Your task to perform on an android device: Show me popular videos on Youtube Image 0: 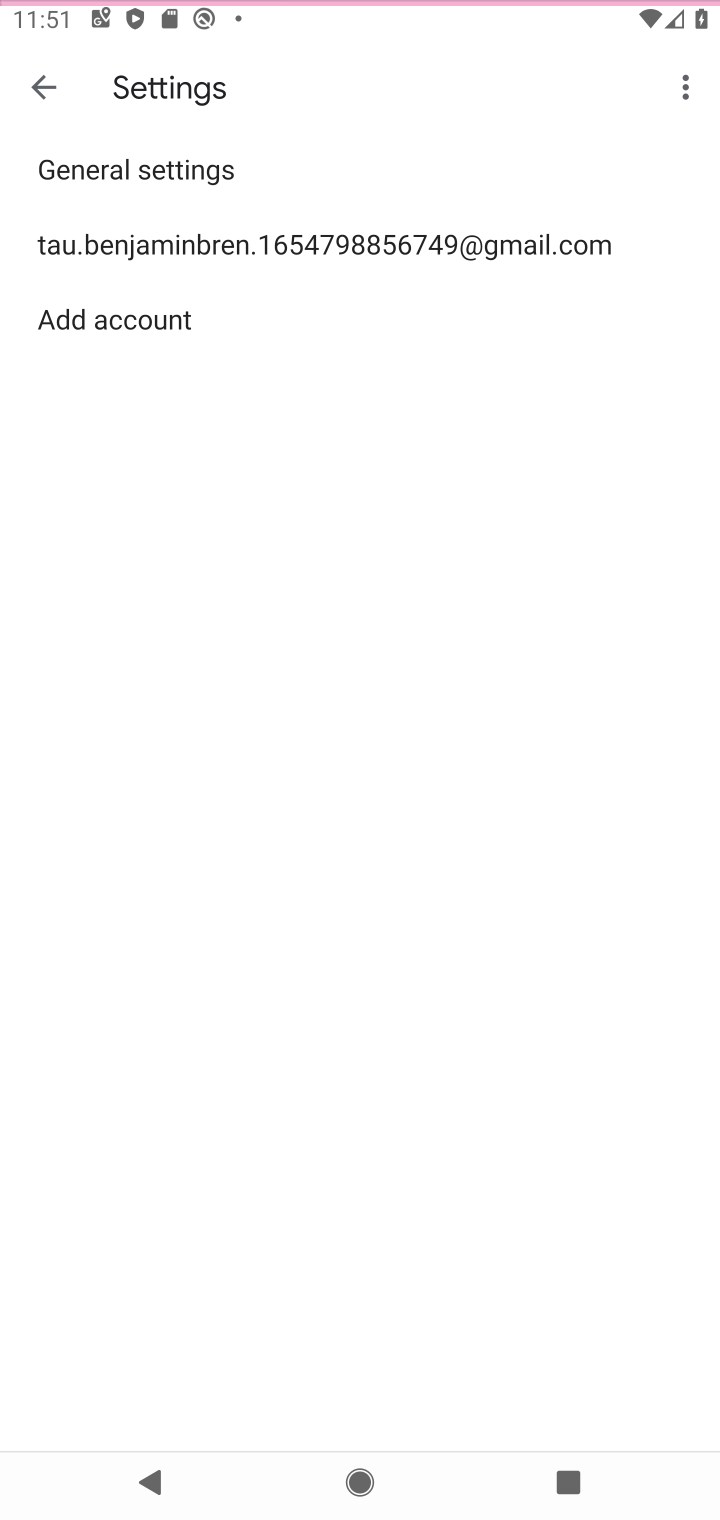
Step 0: press back button
Your task to perform on an android device: Show me popular videos on Youtube Image 1: 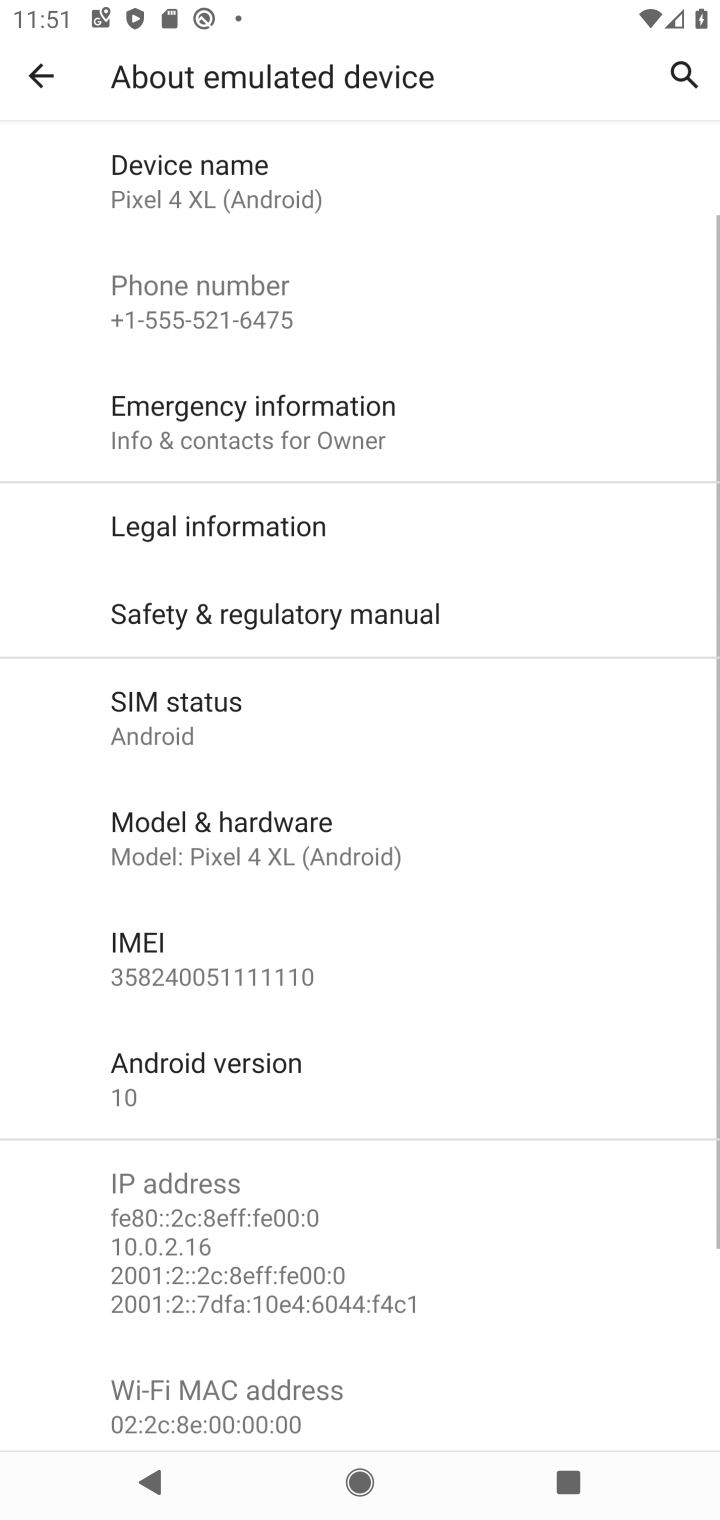
Step 1: press back button
Your task to perform on an android device: Show me popular videos on Youtube Image 2: 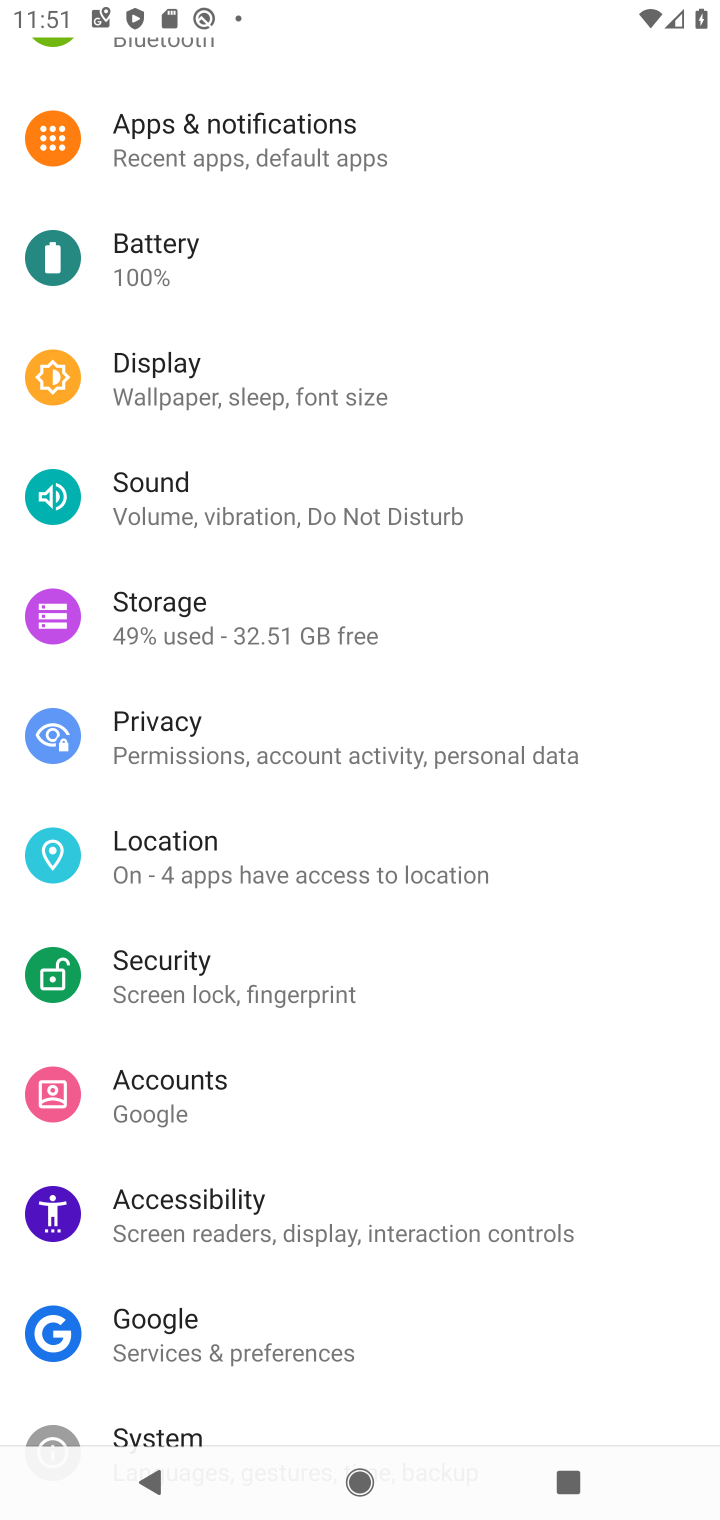
Step 2: press back button
Your task to perform on an android device: Show me popular videos on Youtube Image 3: 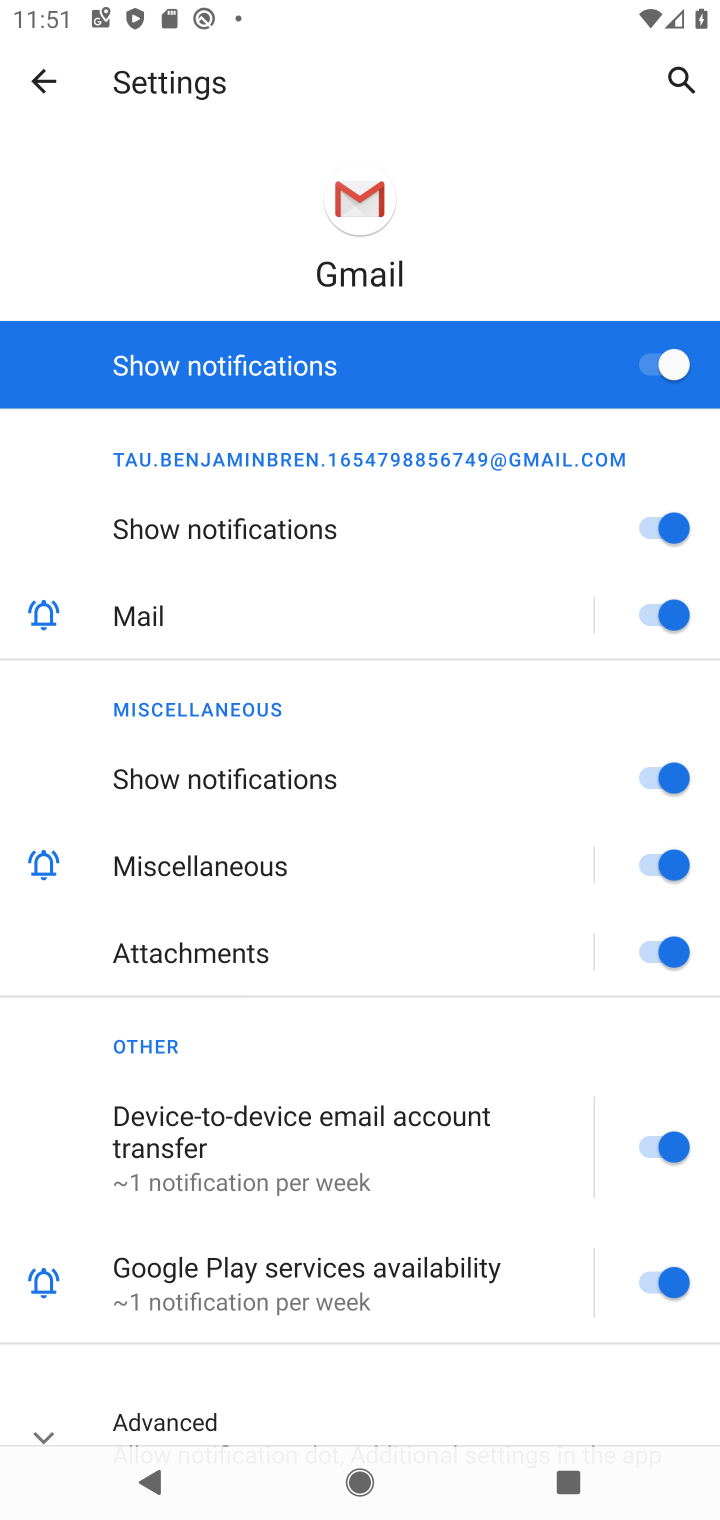
Step 3: press home button
Your task to perform on an android device: Show me popular videos on Youtube Image 4: 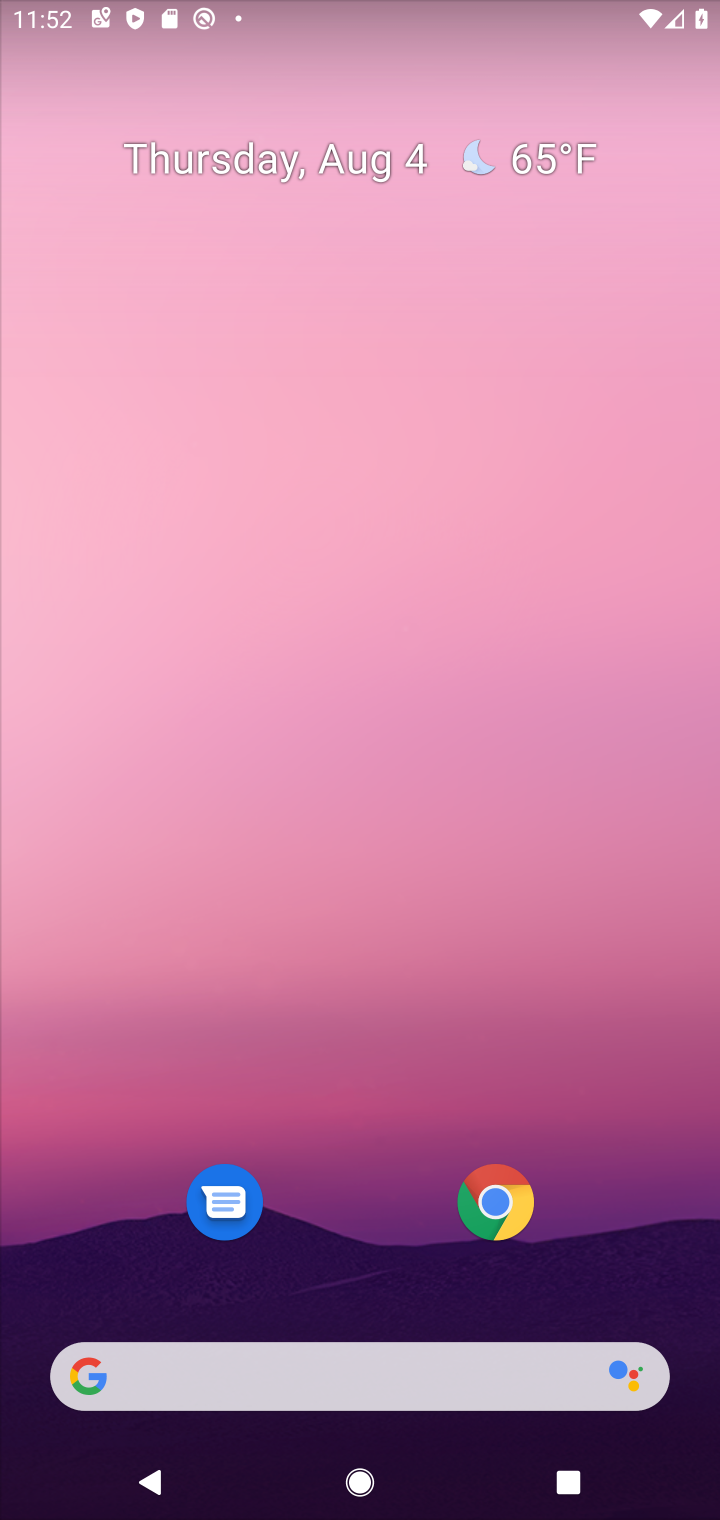
Step 4: drag from (327, 1274) to (386, 290)
Your task to perform on an android device: Show me popular videos on Youtube Image 5: 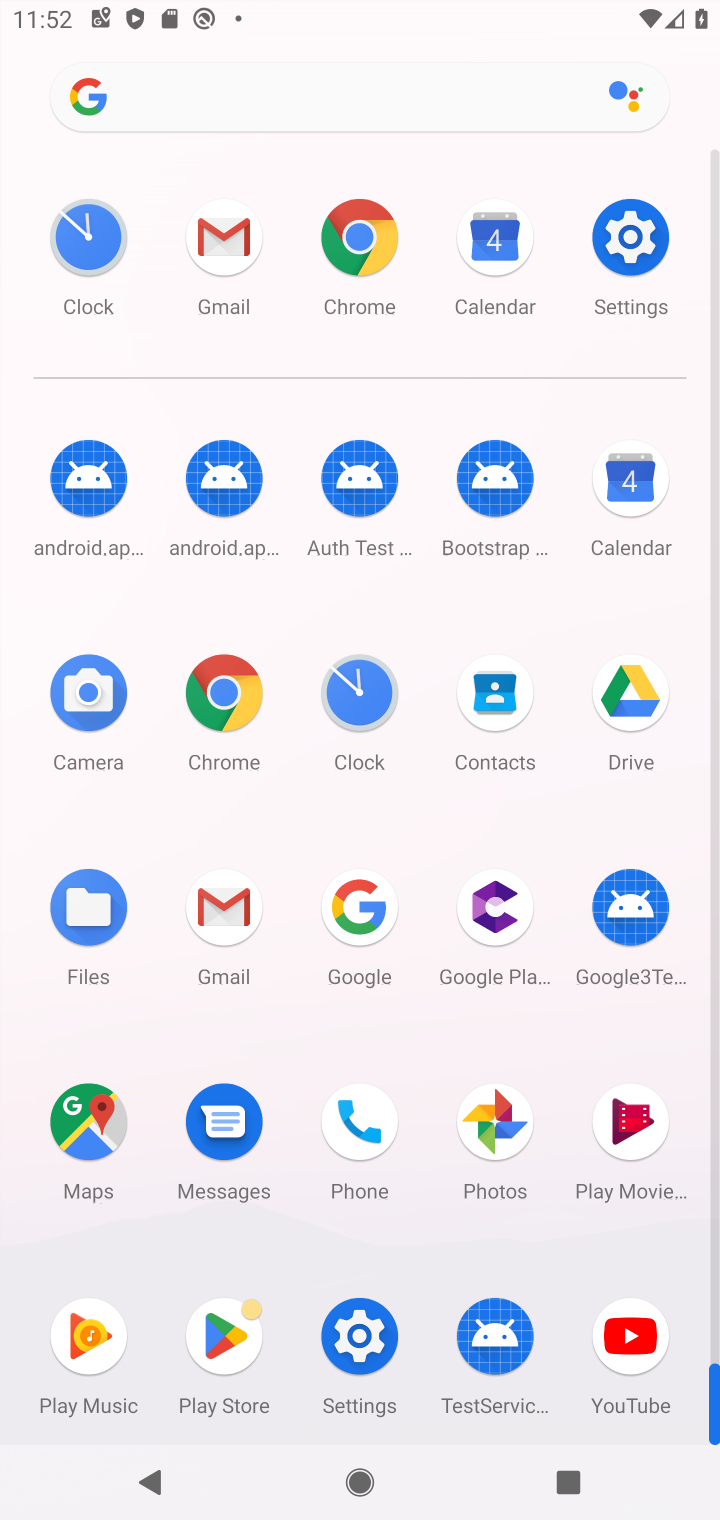
Step 5: click (619, 1353)
Your task to perform on an android device: Show me popular videos on Youtube Image 6: 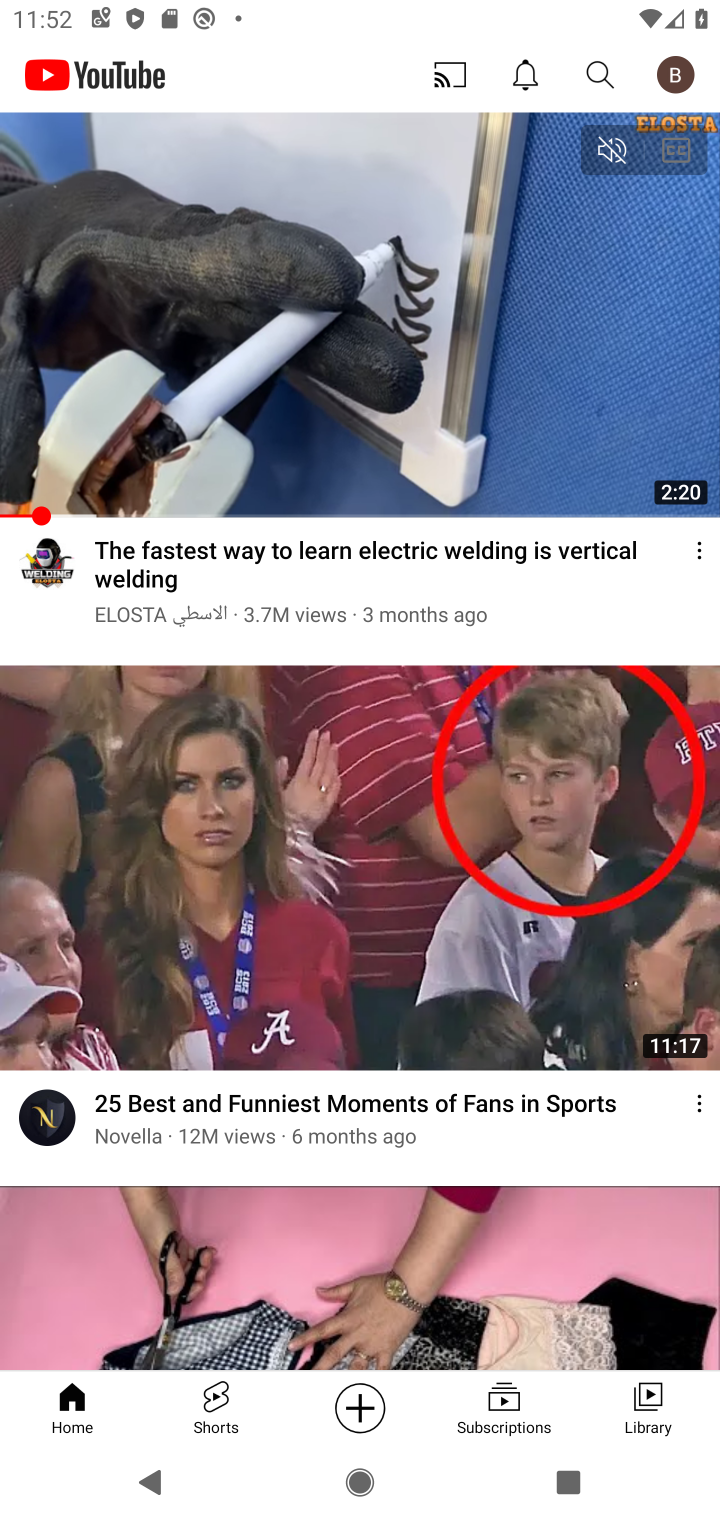
Step 6: click (332, 1172)
Your task to perform on an android device: Show me popular videos on Youtube Image 7: 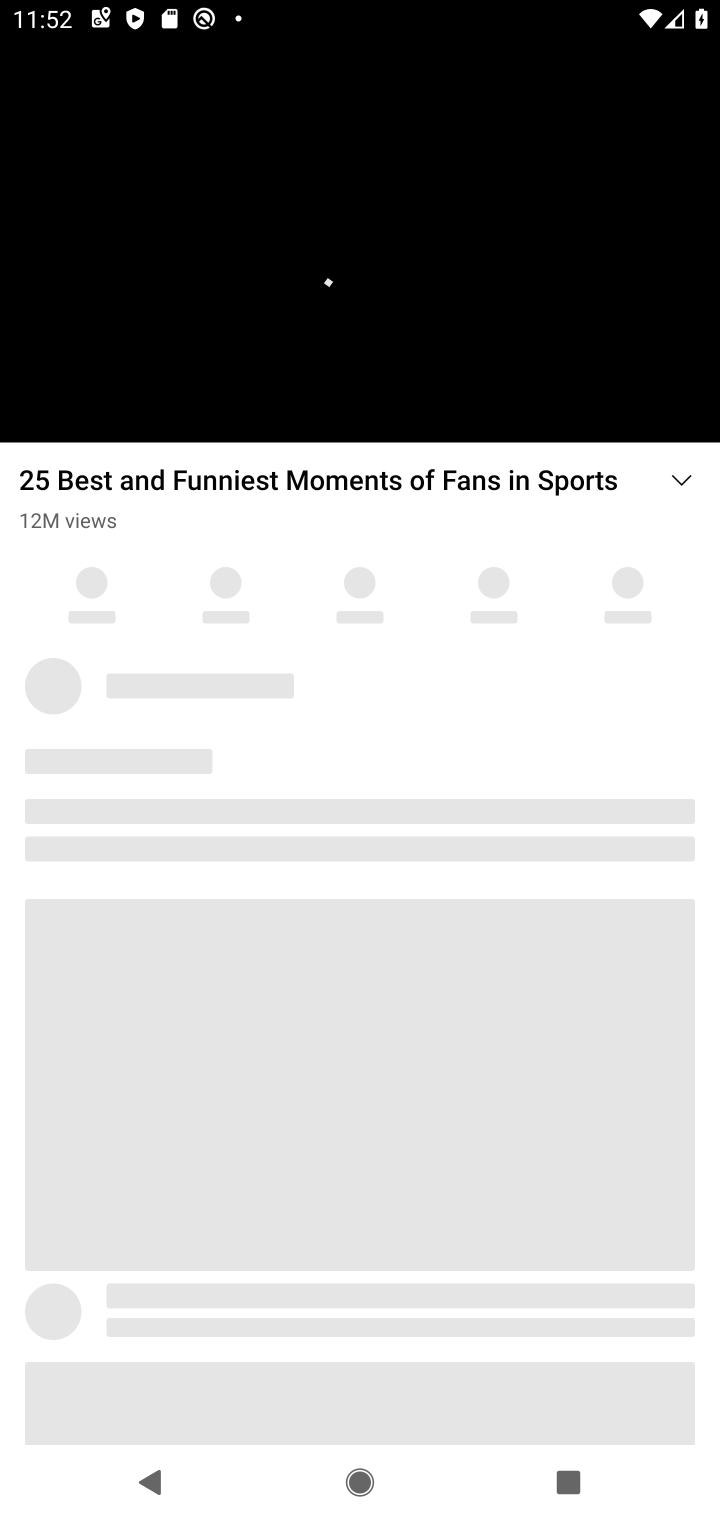
Step 7: click (285, 228)
Your task to perform on an android device: Show me popular videos on Youtube Image 8: 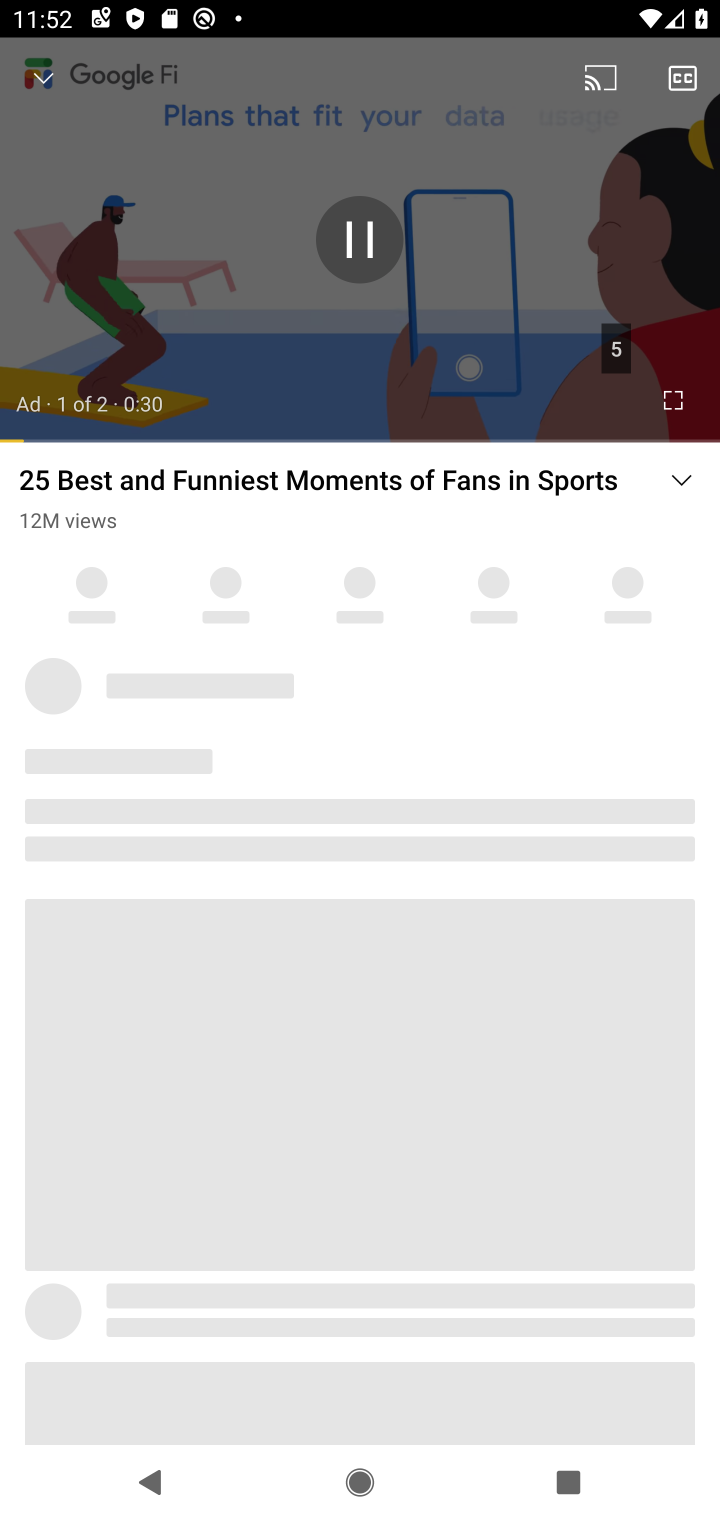
Step 8: click (363, 237)
Your task to perform on an android device: Show me popular videos on Youtube Image 9: 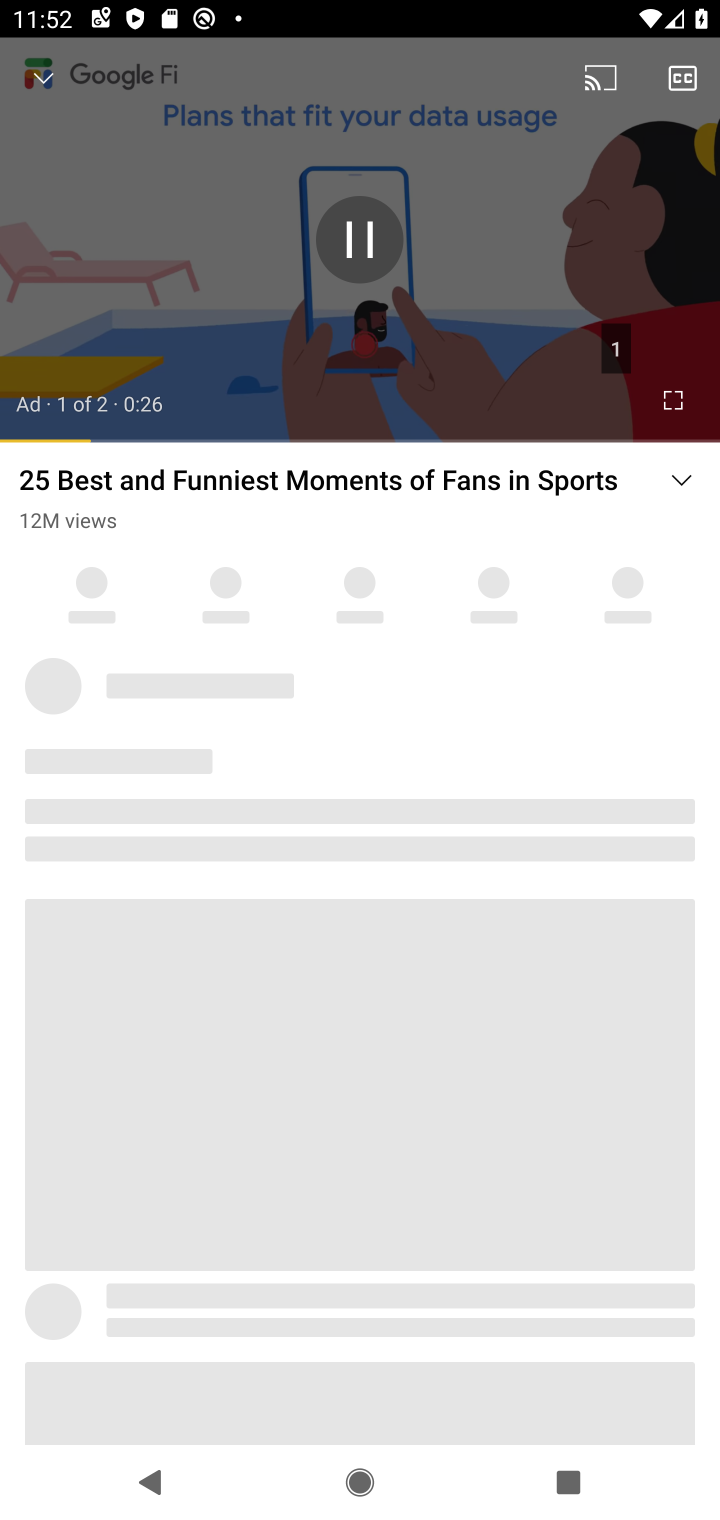
Step 9: click (363, 242)
Your task to perform on an android device: Show me popular videos on Youtube Image 10: 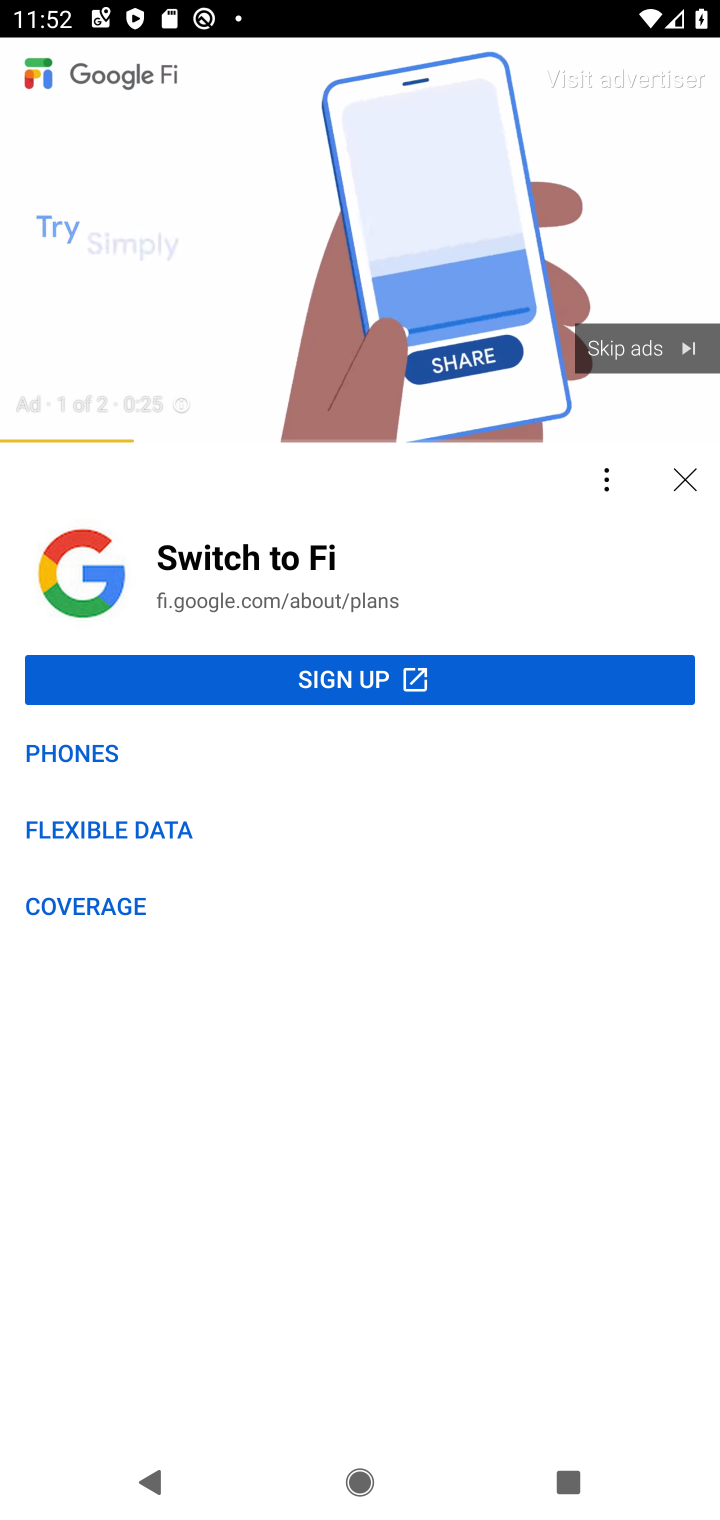
Step 10: click (40, 68)
Your task to perform on an android device: Show me popular videos on Youtube Image 11: 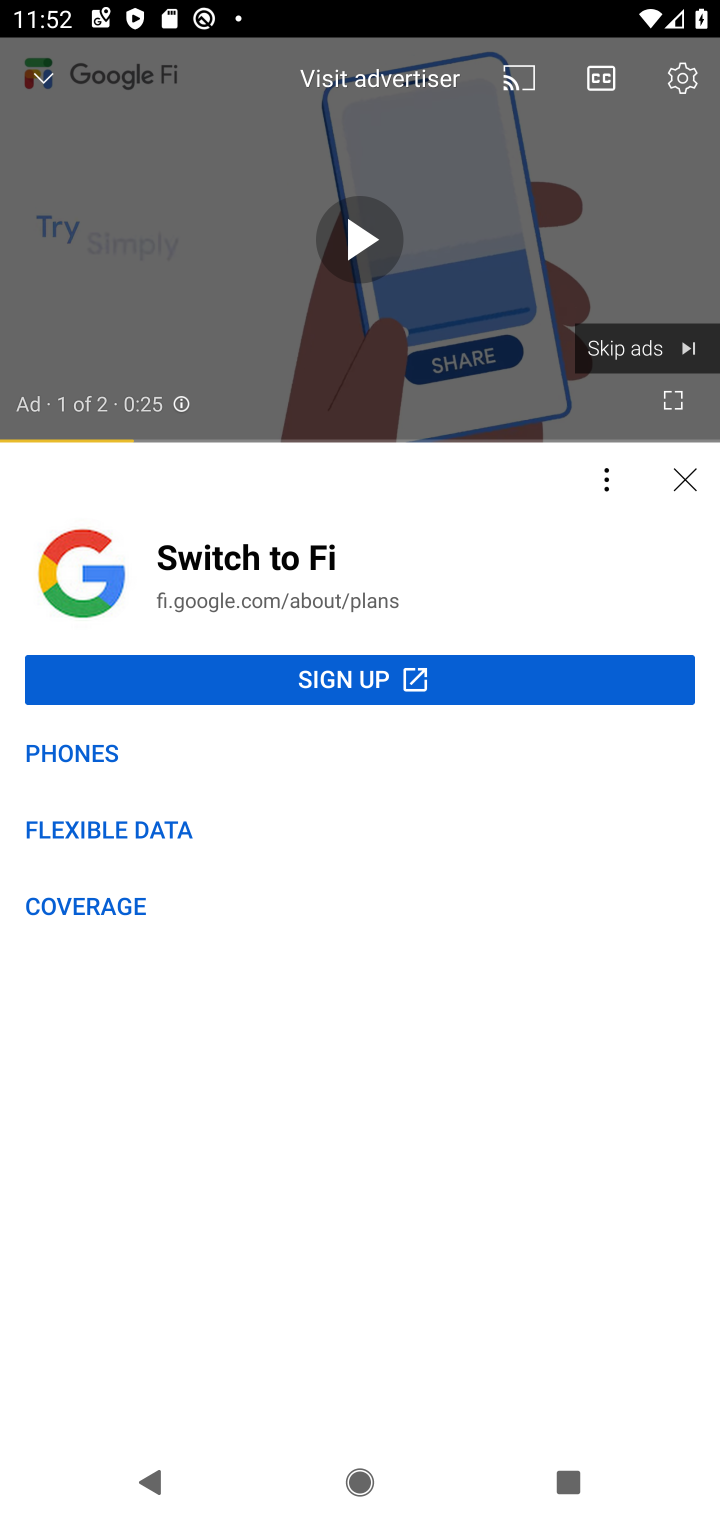
Step 11: drag from (186, 217) to (341, 1245)
Your task to perform on an android device: Show me popular videos on Youtube Image 12: 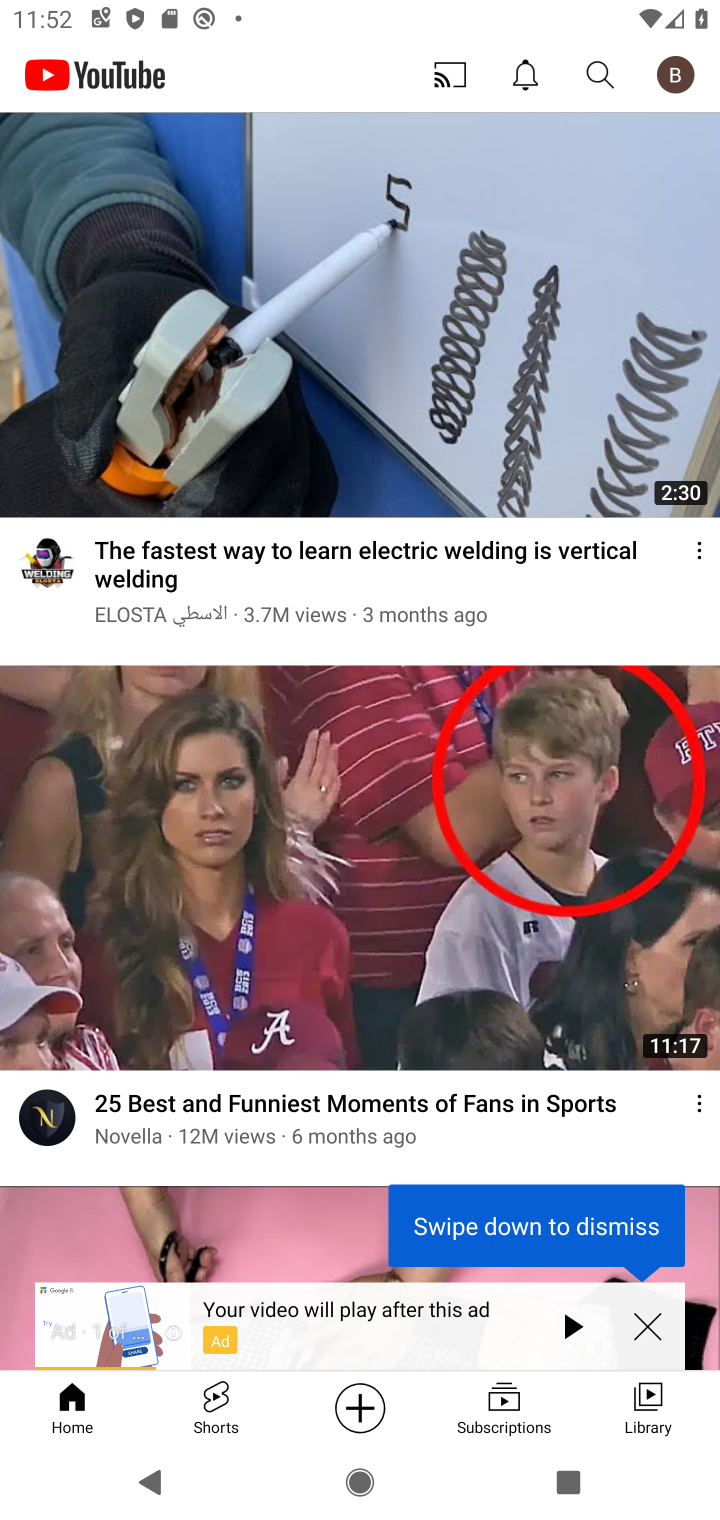
Step 12: drag from (355, 436) to (95, 149)
Your task to perform on an android device: Show me popular videos on Youtube Image 13: 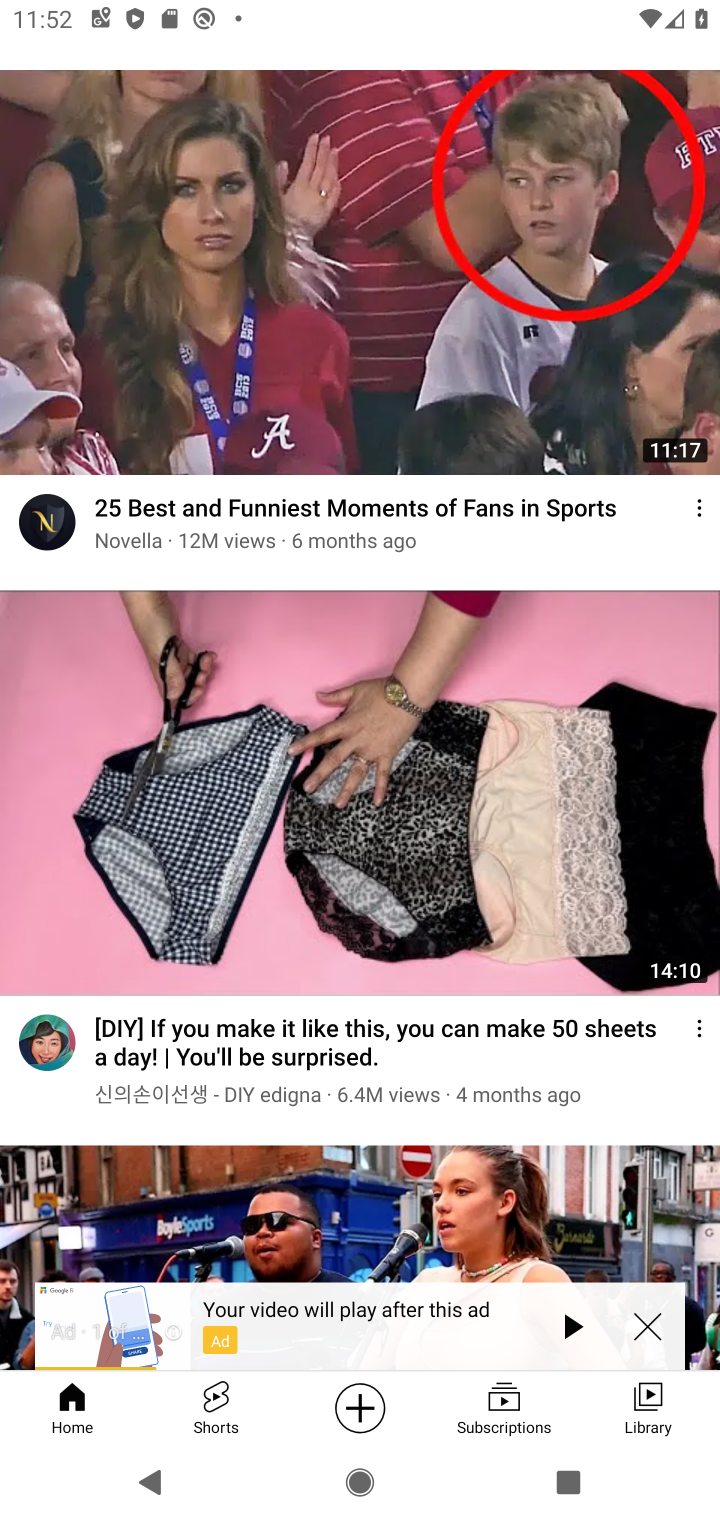
Step 13: drag from (305, 547) to (269, 948)
Your task to perform on an android device: Show me popular videos on Youtube Image 14: 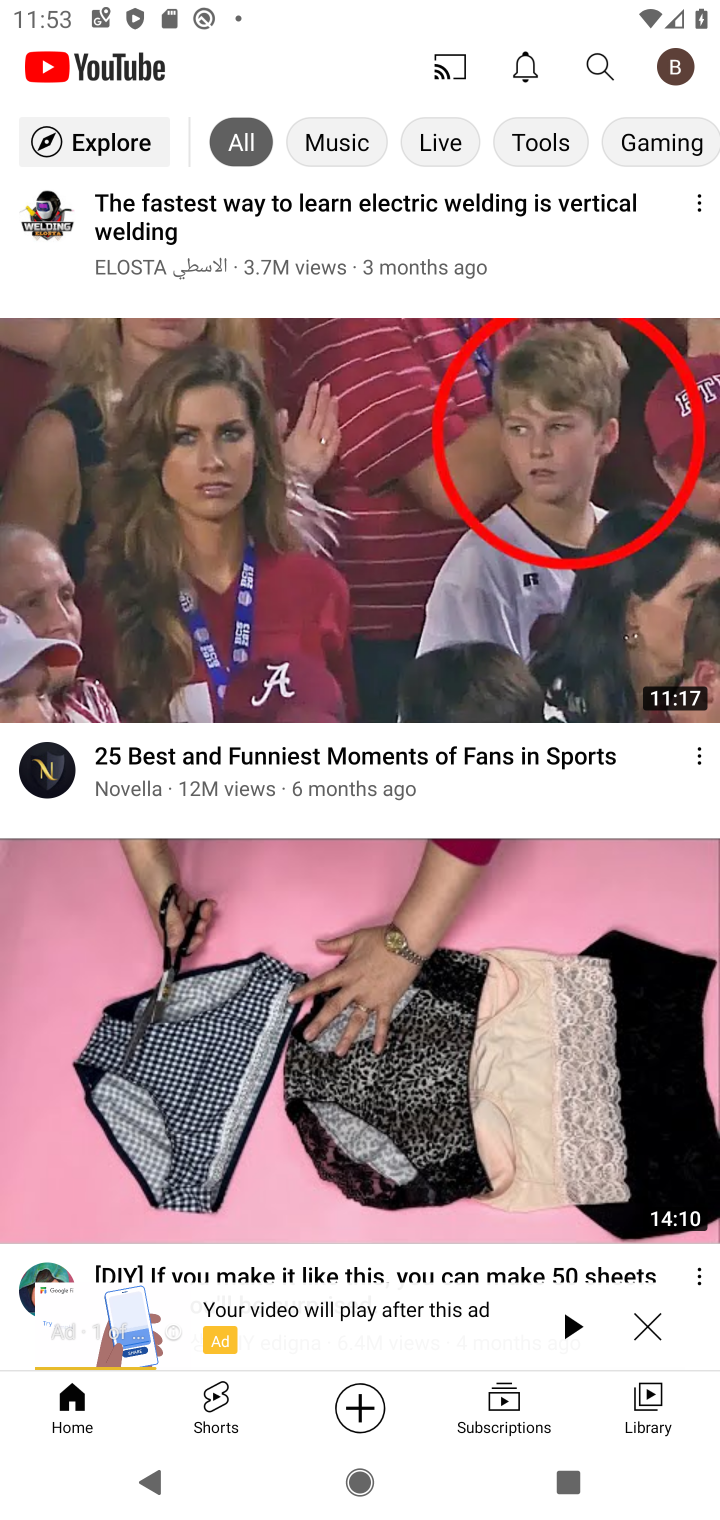
Step 14: click (96, 150)
Your task to perform on an android device: Show me popular videos on Youtube Image 15: 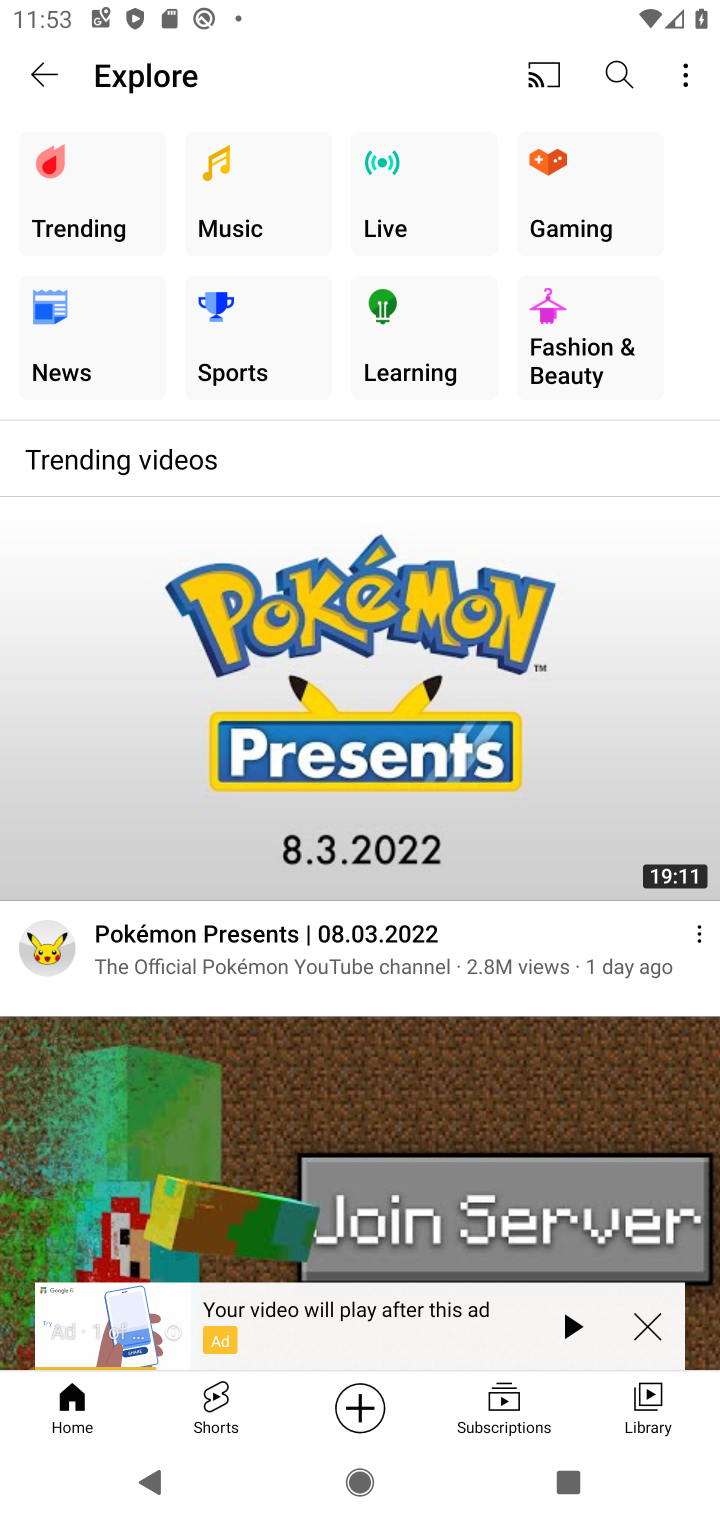
Step 15: click (74, 198)
Your task to perform on an android device: Show me popular videos on Youtube Image 16: 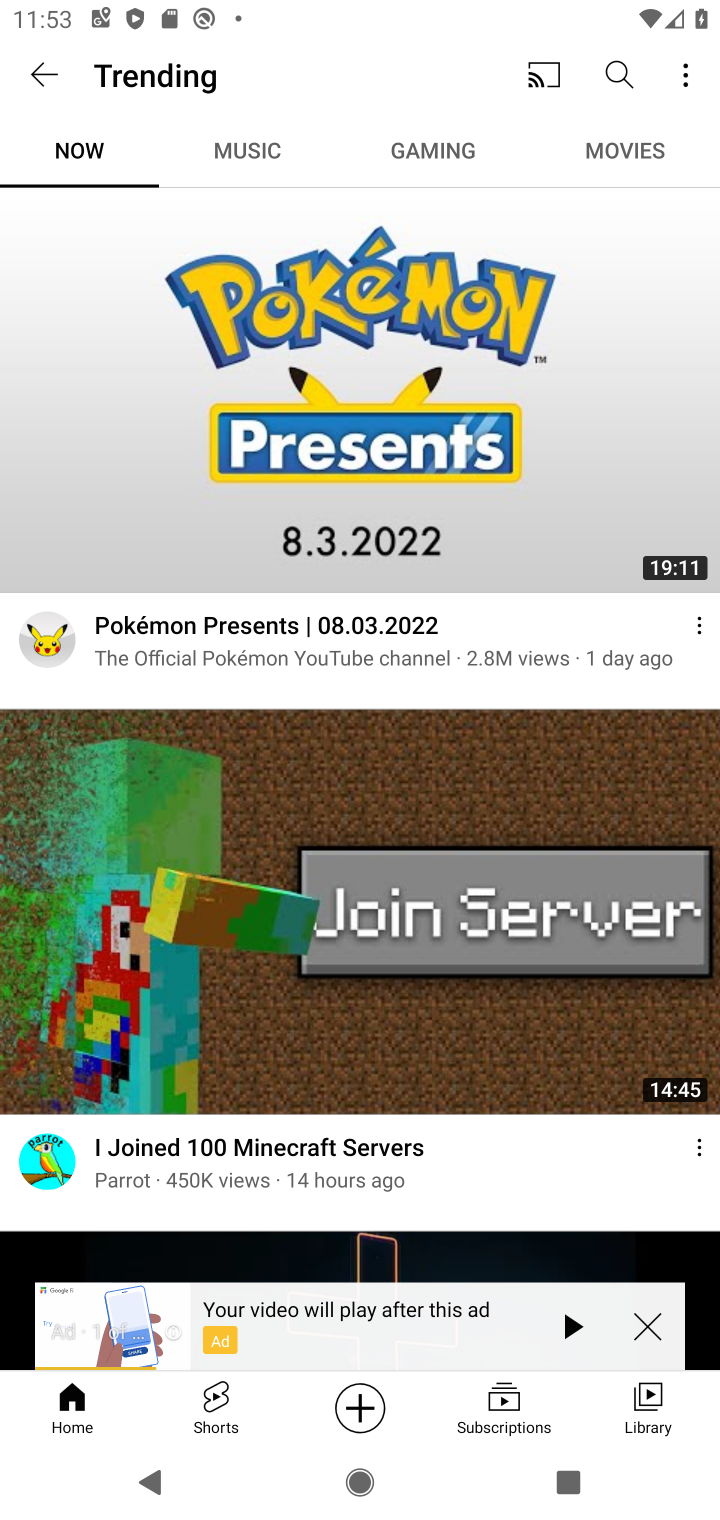
Step 16: task complete